Your task to perform on an android device: What's on the menu at Taco Bell? Image 0: 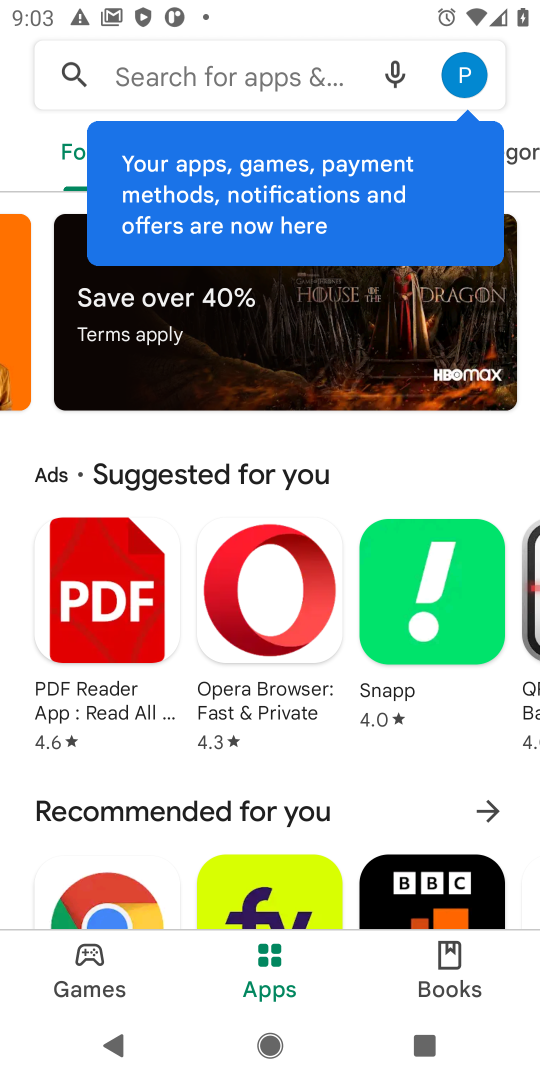
Step 0: press home button
Your task to perform on an android device: What's on the menu at Taco Bell? Image 1: 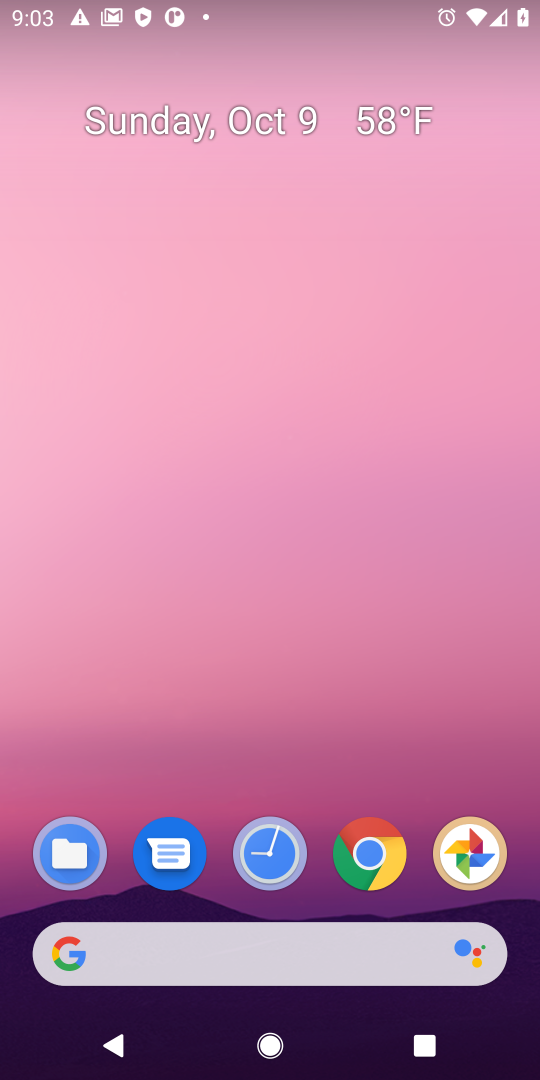
Step 1: click (381, 847)
Your task to perform on an android device: What's on the menu at Taco Bell? Image 2: 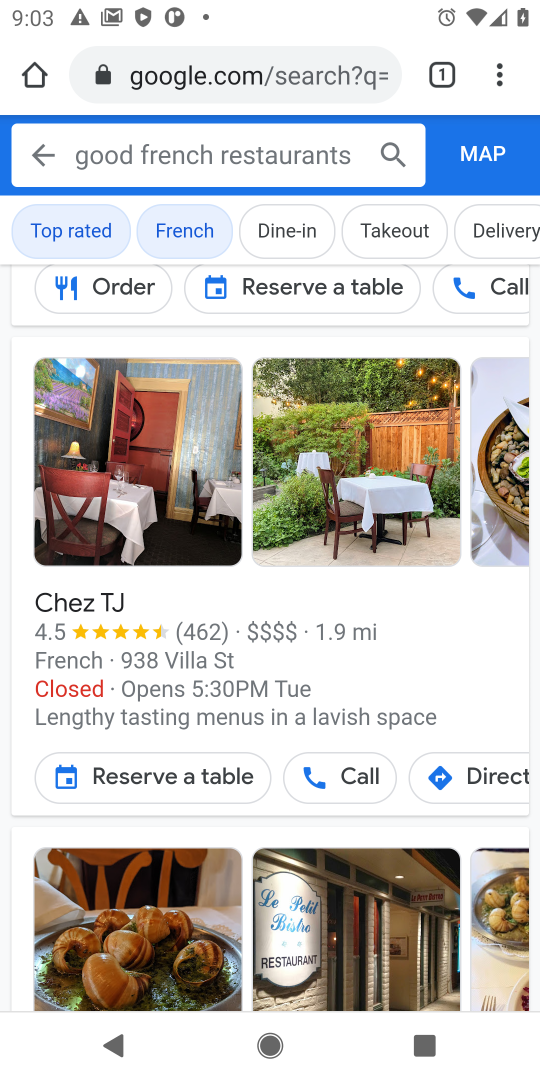
Step 2: click (292, 68)
Your task to perform on an android device: What's on the menu at Taco Bell? Image 3: 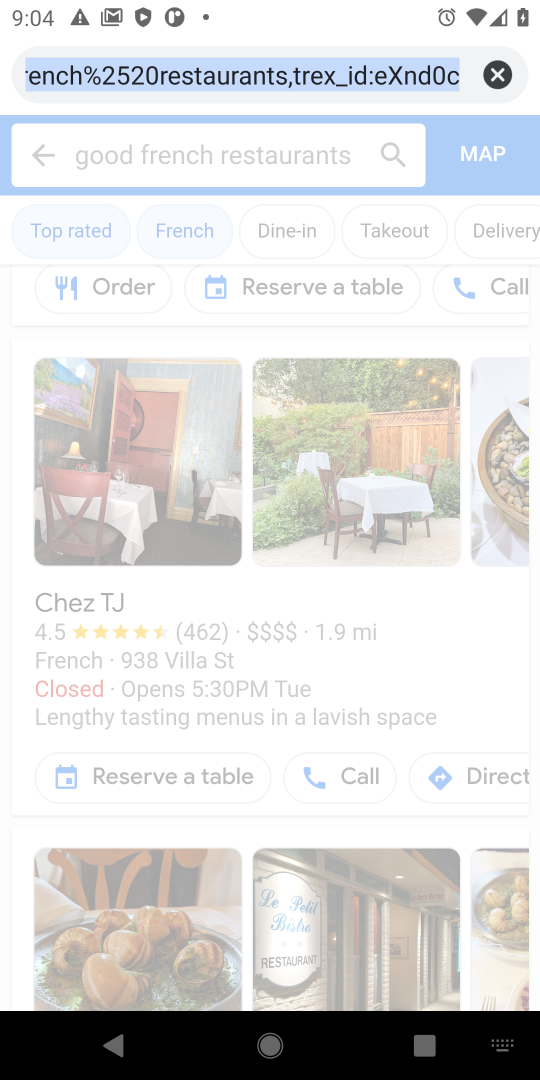
Step 3: type "taco bell menu"
Your task to perform on an android device: What's on the menu at Taco Bell? Image 4: 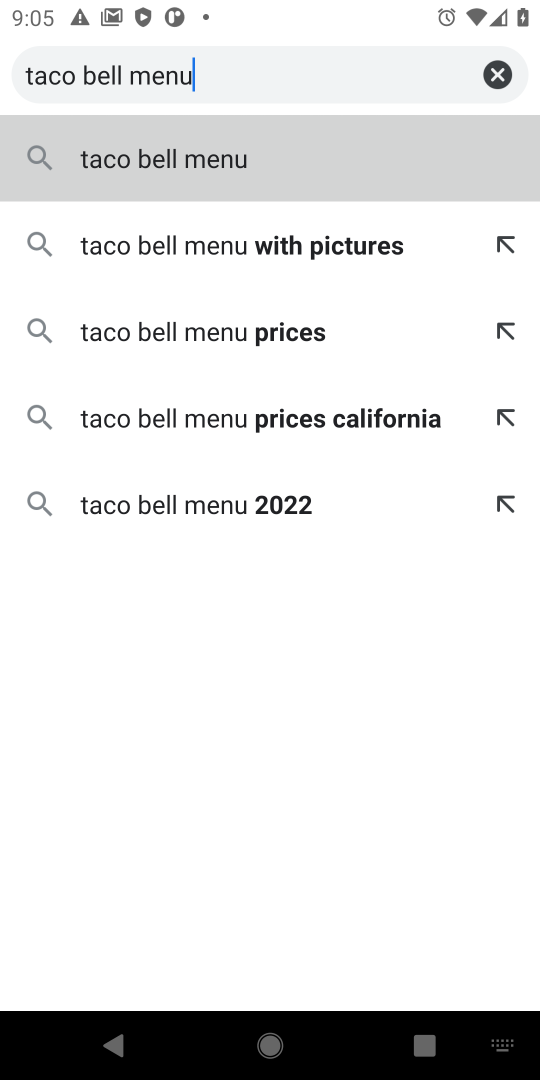
Step 4: click (286, 171)
Your task to perform on an android device: What's on the menu at Taco Bell? Image 5: 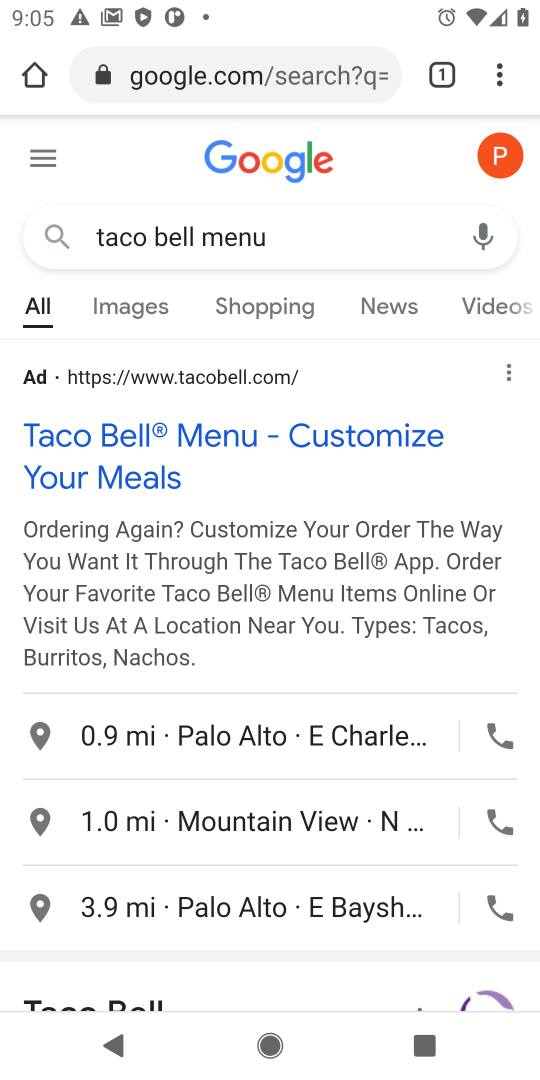
Step 5: click (270, 438)
Your task to perform on an android device: What's on the menu at Taco Bell? Image 6: 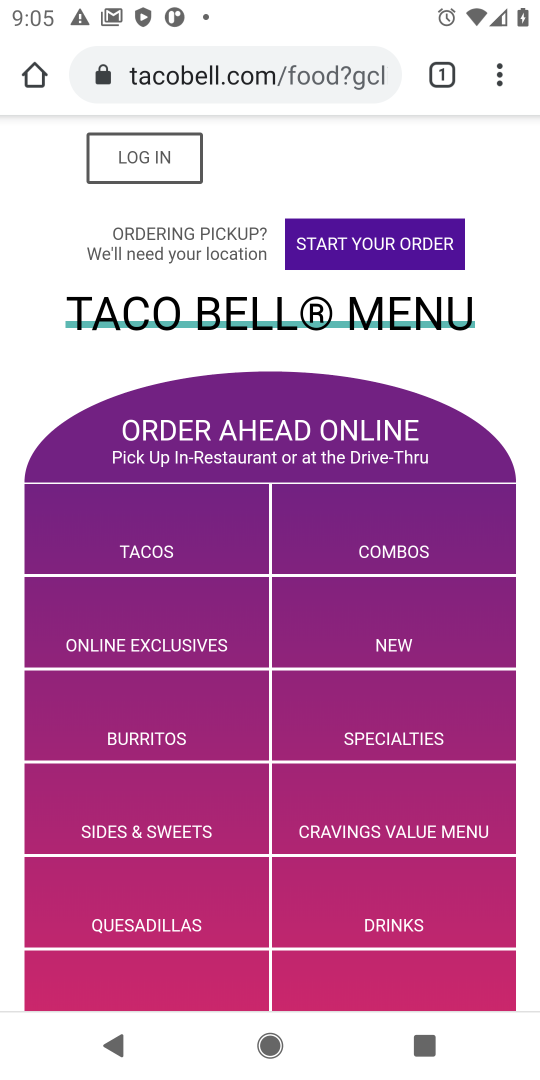
Step 6: task complete